Your task to perform on an android device: open a new tab in the chrome app Image 0: 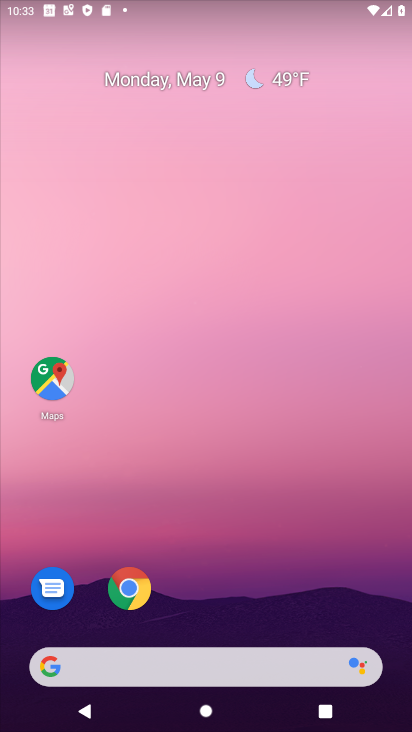
Step 0: click (133, 593)
Your task to perform on an android device: open a new tab in the chrome app Image 1: 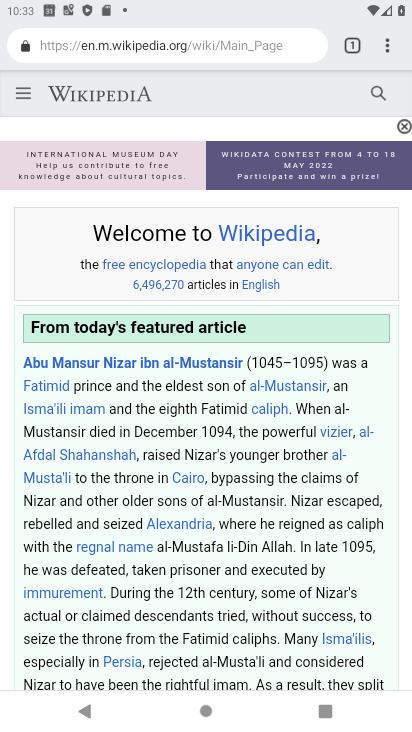
Step 1: click (386, 55)
Your task to perform on an android device: open a new tab in the chrome app Image 2: 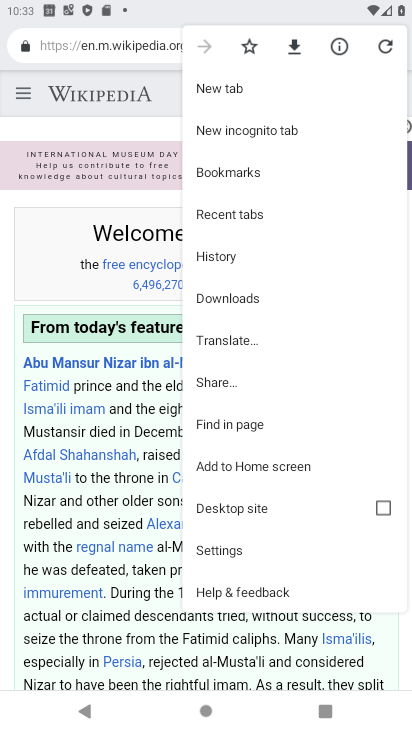
Step 2: click (221, 83)
Your task to perform on an android device: open a new tab in the chrome app Image 3: 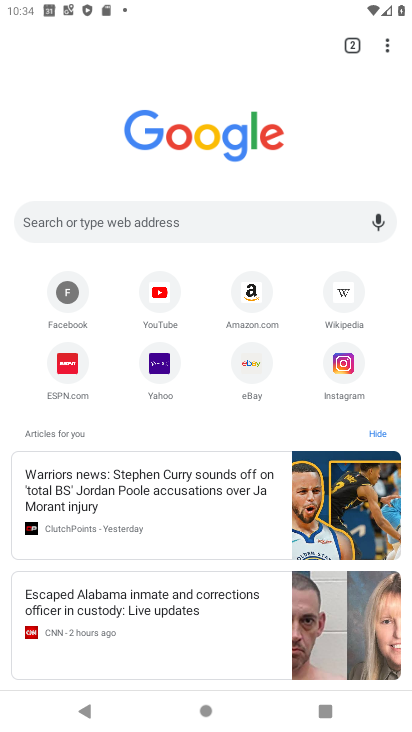
Step 3: task complete